Your task to perform on an android device: Go to Wikipedia Image 0: 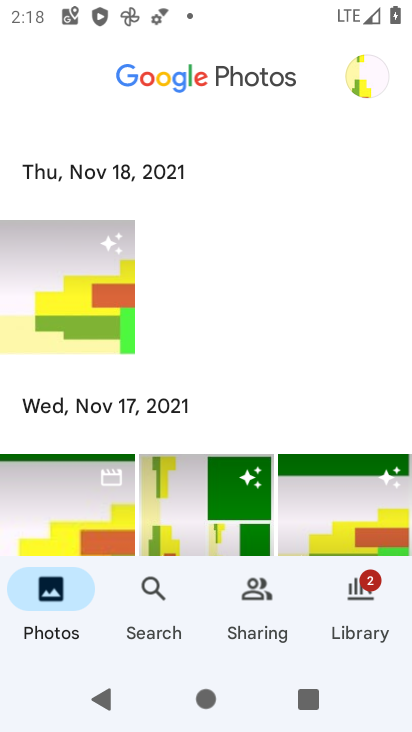
Step 0: press home button
Your task to perform on an android device: Go to Wikipedia Image 1: 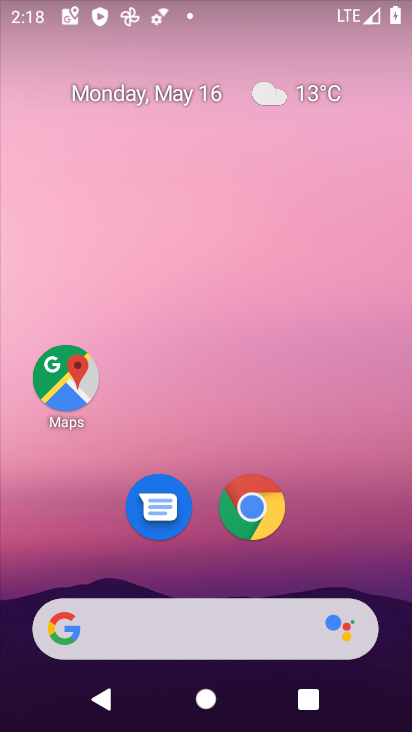
Step 1: click (265, 505)
Your task to perform on an android device: Go to Wikipedia Image 2: 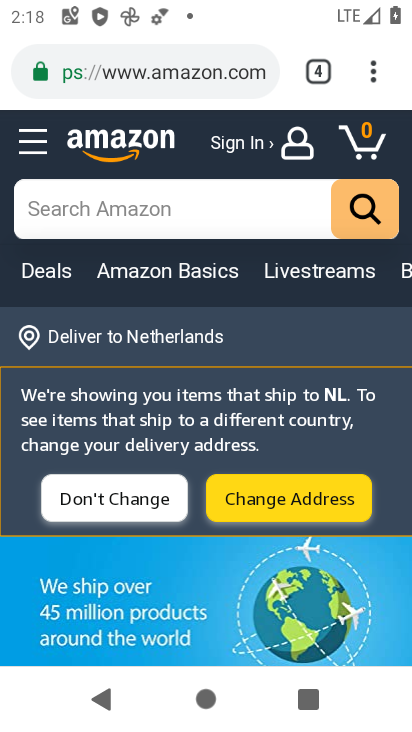
Step 2: click (315, 65)
Your task to perform on an android device: Go to Wikipedia Image 3: 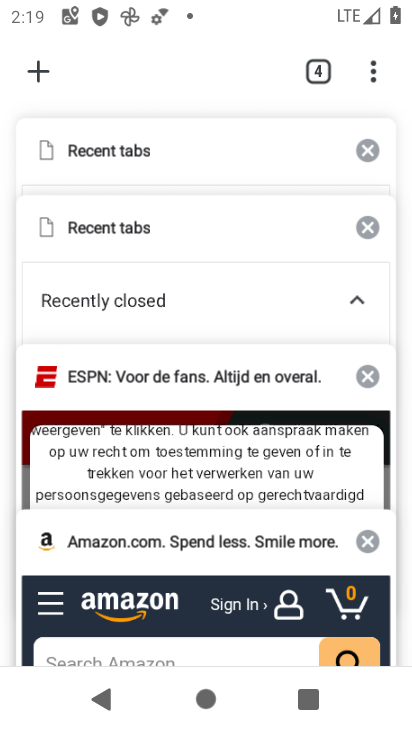
Step 3: click (42, 72)
Your task to perform on an android device: Go to Wikipedia Image 4: 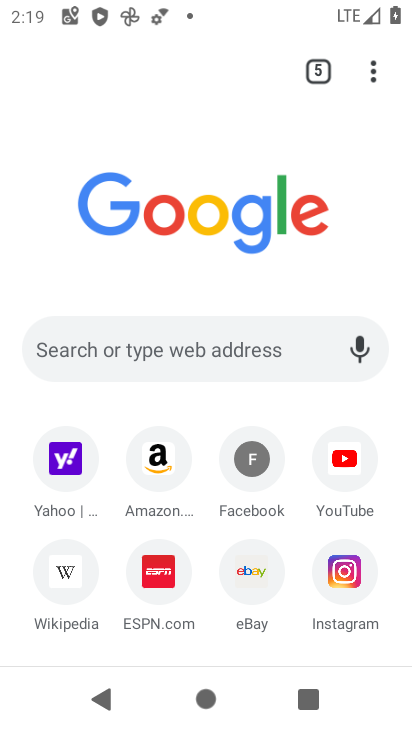
Step 4: click (60, 567)
Your task to perform on an android device: Go to Wikipedia Image 5: 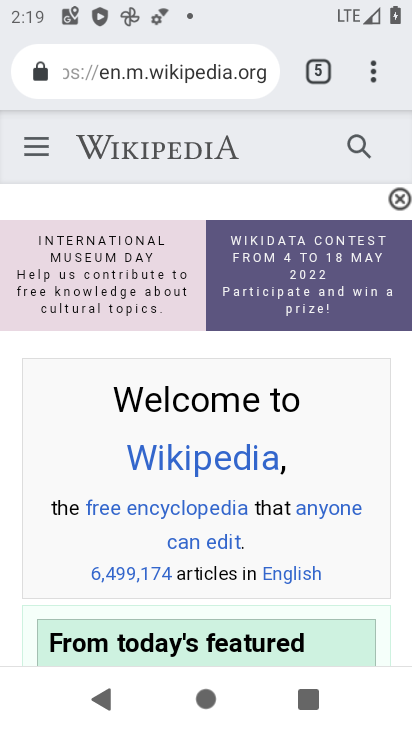
Step 5: task complete